Your task to perform on an android device: Go to network settings Image 0: 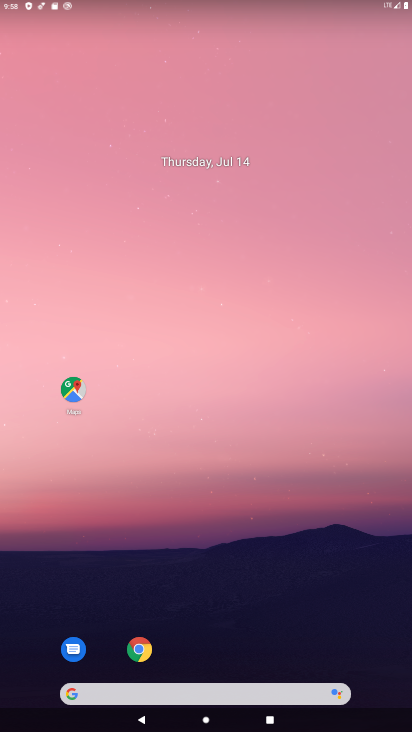
Step 0: drag from (207, 648) to (221, 169)
Your task to perform on an android device: Go to network settings Image 1: 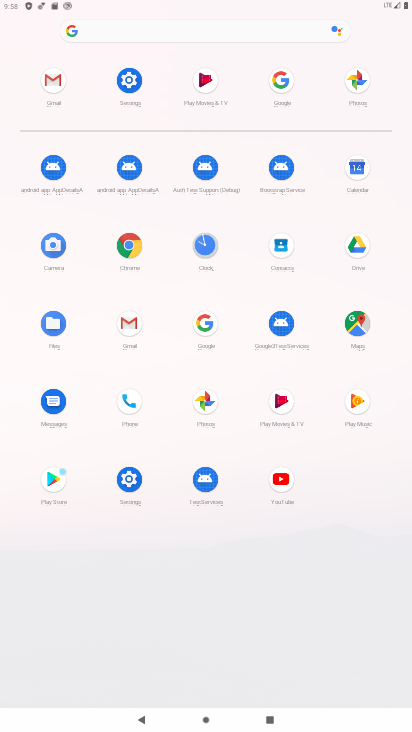
Step 1: click (136, 88)
Your task to perform on an android device: Go to network settings Image 2: 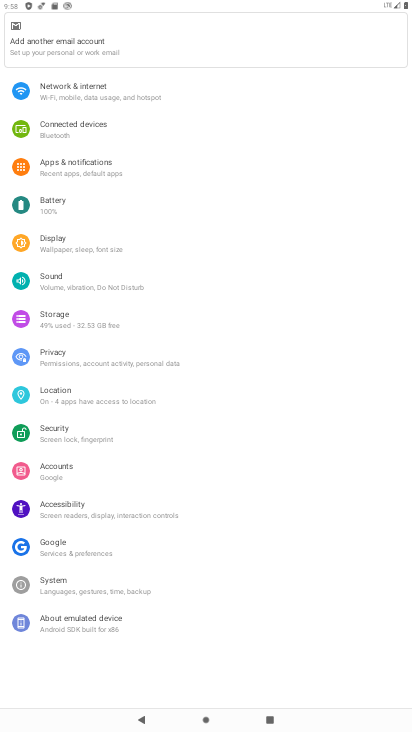
Step 2: click (106, 99)
Your task to perform on an android device: Go to network settings Image 3: 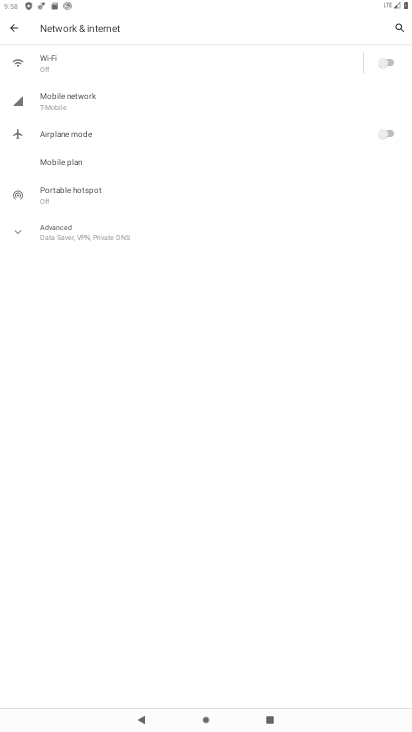
Step 3: task complete